Your task to perform on an android device: Open calendar and show me the fourth week of next month Image 0: 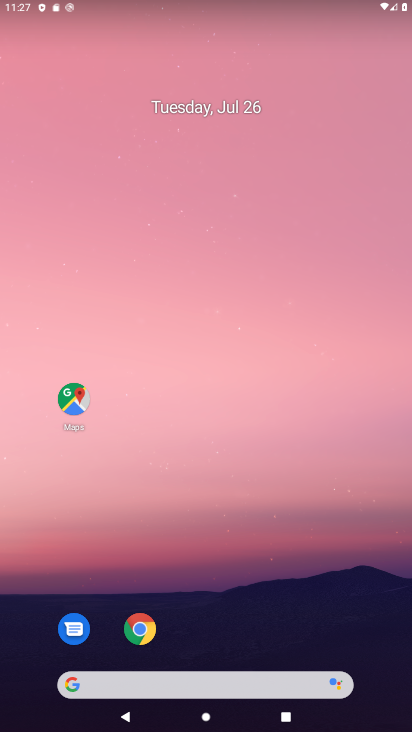
Step 0: drag from (224, 715) to (208, 180)
Your task to perform on an android device: Open calendar and show me the fourth week of next month Image 1: 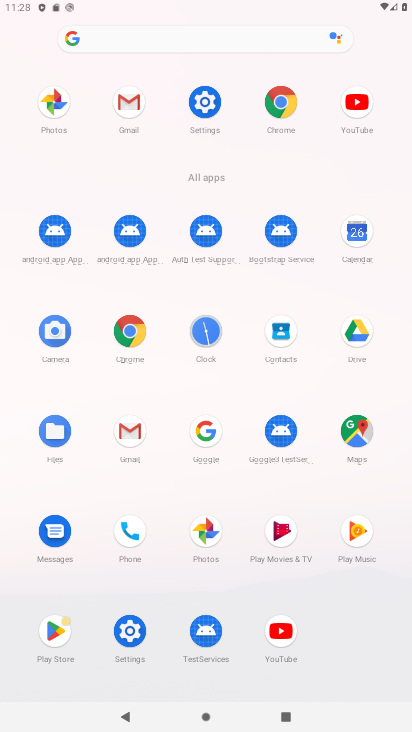
Step 1: click (356, 243)
Your task to perform on an android device: Open calendar and show me the fourth week of next month Image 2: 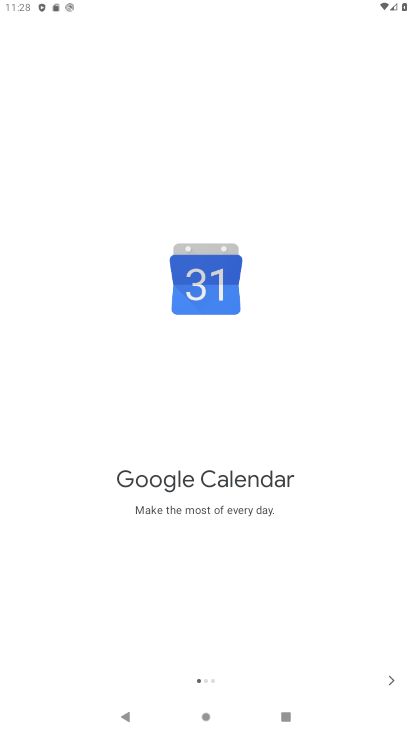
Step 2: click (391, 675)
Your task to perform on an android device: Open calendar and show me the fourth week of next month Image 3: 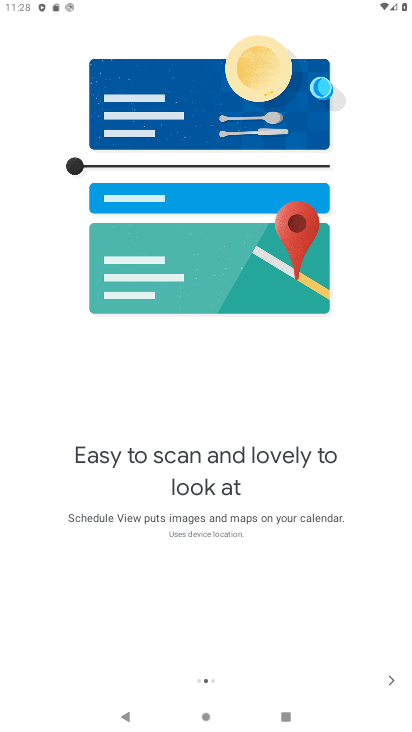
Step 3: click (390, 678)
Your task to perform on an android device: Open calendar and show me the fourth week of next month Image 4: 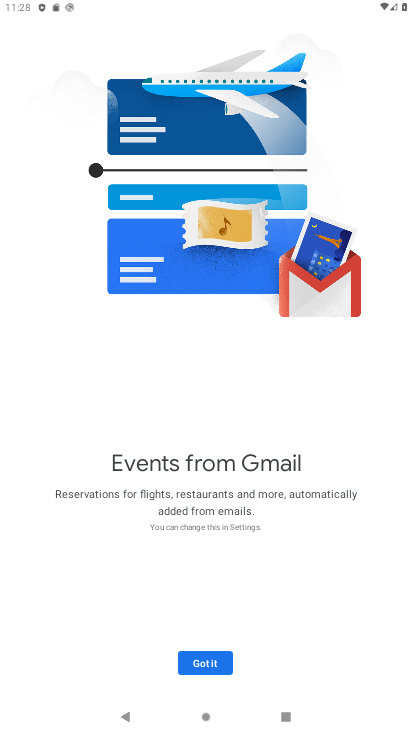
Step 4: click (208, 660)
Your task to perform on an android device: Open calendar and show me the fourth week of next month Image 5: 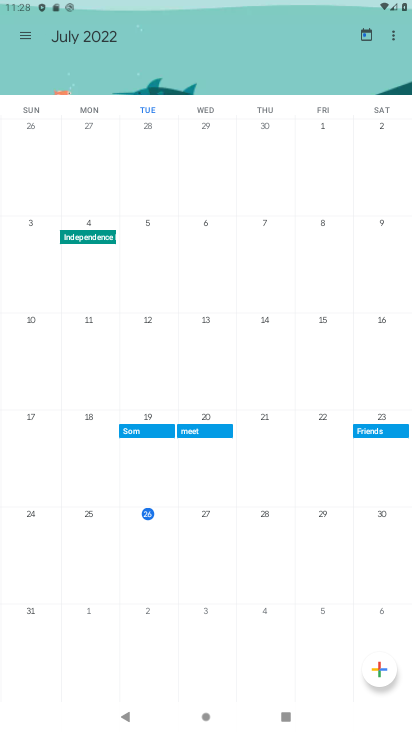
Step 5: click (107, 42)
Your task to perform on an android device: Open calendar and show me the fourth week of next month Image 6: 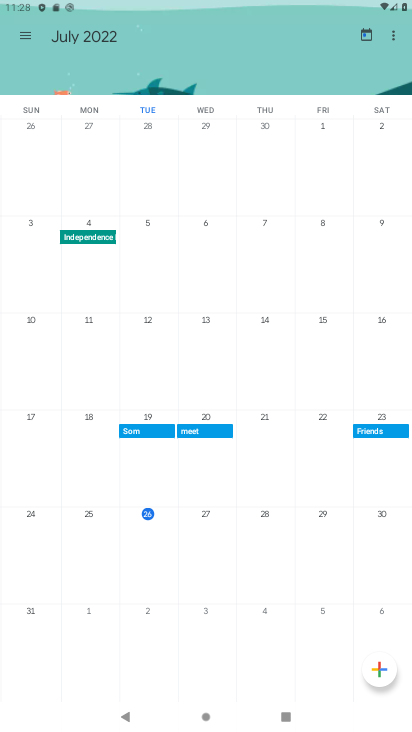
Step 6: drag from (337, 297) to (57, 291)
Your task to perform on an android device: Open calendar and show me the fourth week of next month Image 7: 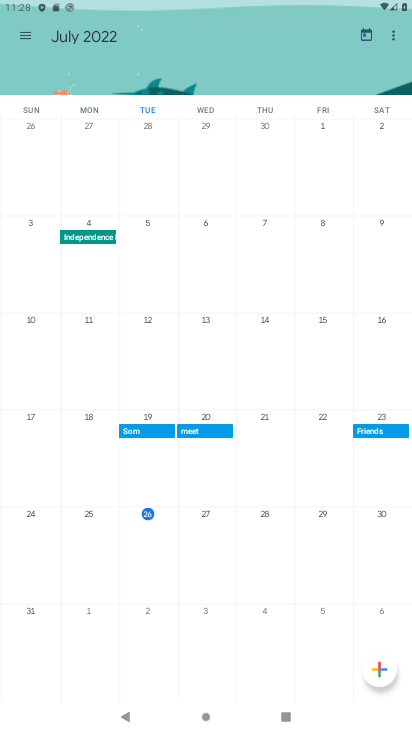
Step 7: drag from (354, 271) to (7, 262)
Your task to perform on an android device: Open calendar and show me the fourth week of next month Image 8: 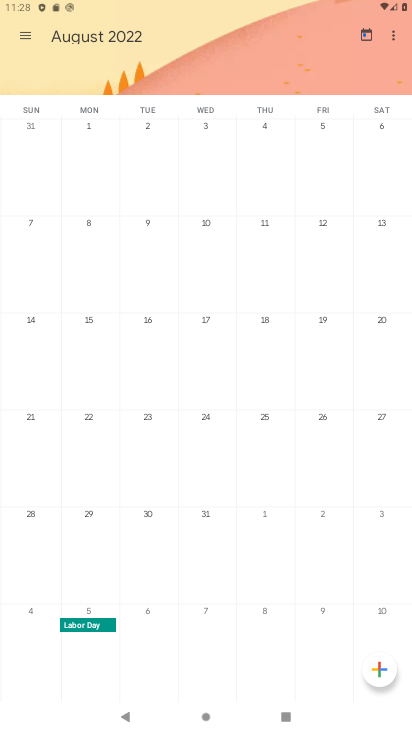
Step 8: click (88, 413)
Your task to perform on an android device: Open calendar and show me the fourth week of next month Image 9: 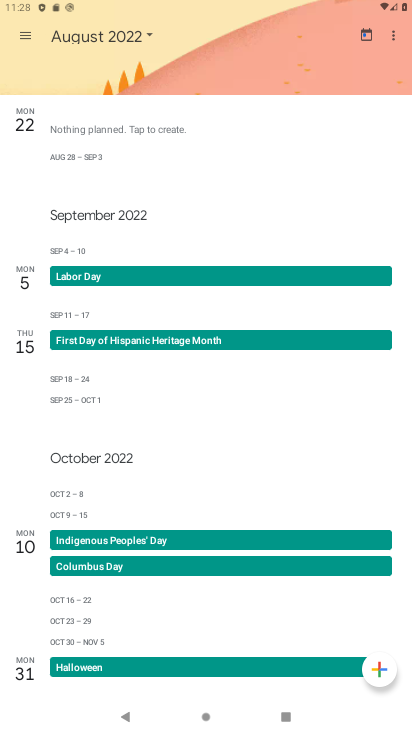
Step 9: click (23, 32)
Your task to perform on an android device: Open calendar and show me the fourth week of next month Image 10: 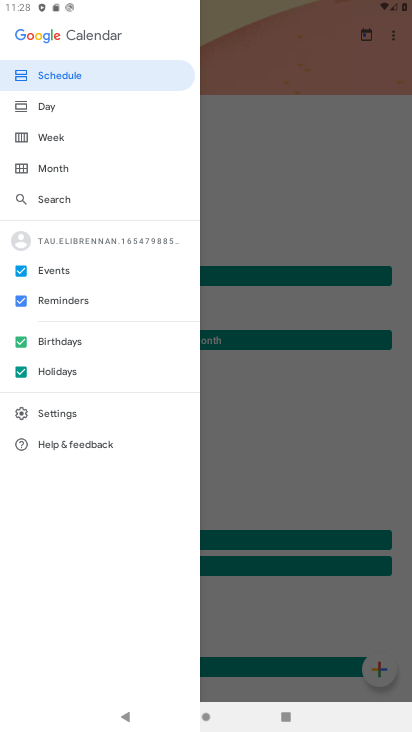
Step 10: click (58, 137)
Your task to perform on an android device: Open calendar and show me the fourth week of next month Image 11: 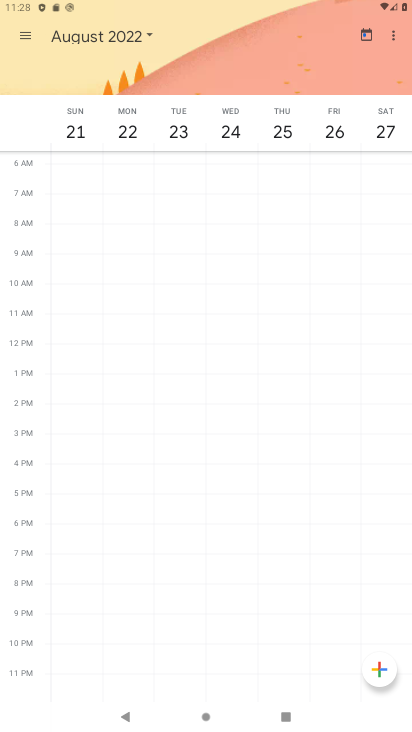
Step 11: task complete